Your task to perform on an android device: Go to notification settings Image 0: 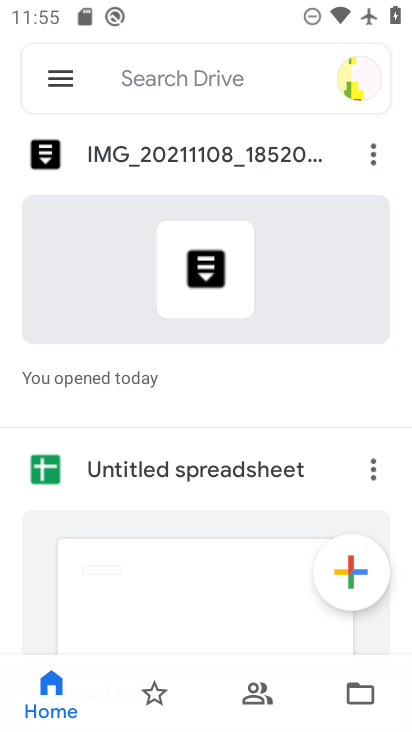
Step 0: press home button
Your task to perform on an android device: Go to notification settings Image 1: 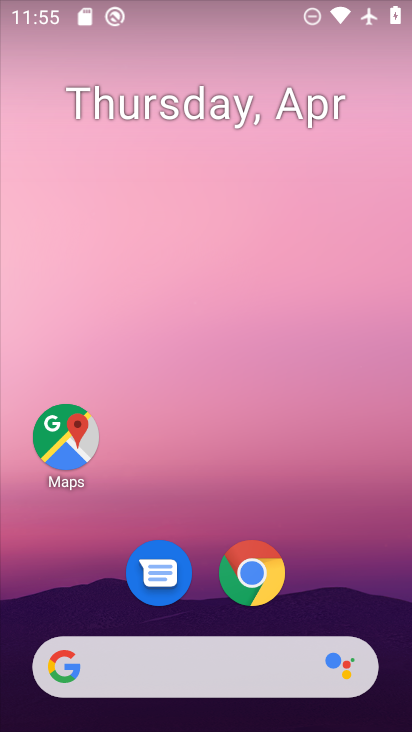
Step 1: drag from (340, 529) to (299, 3)
Your task to perform on an android device: Go to notification settings Image 2: 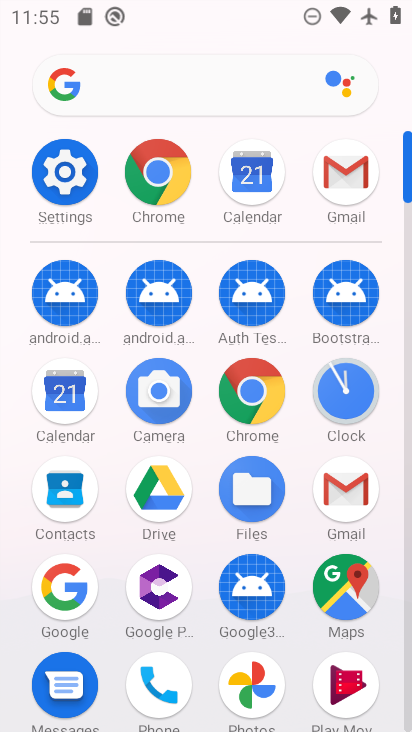
Step 2: click (81, 171)
Your task to perform on an android device: Go to notification settings Image 3: 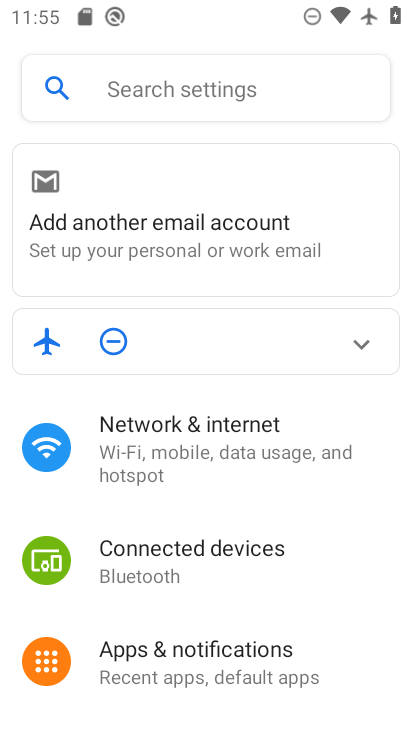
Step 3: drag from (249, 587) to (250, 160)
Your task to perform on an android device: Go to notification settings Image 4: 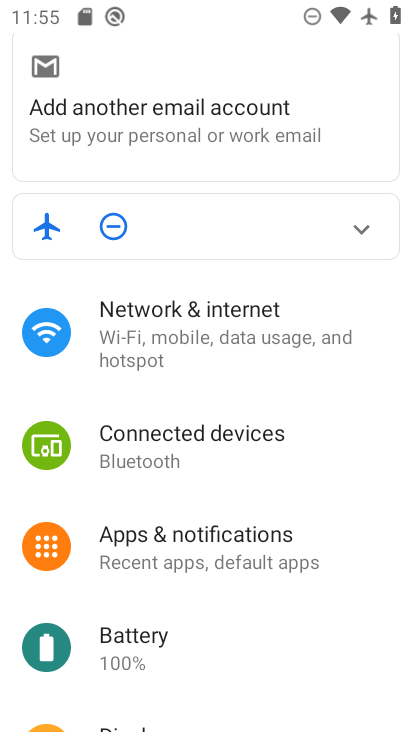
Step 4: click (252, 555)
Your task to perform on an android device: Go to notification settings Image 5: 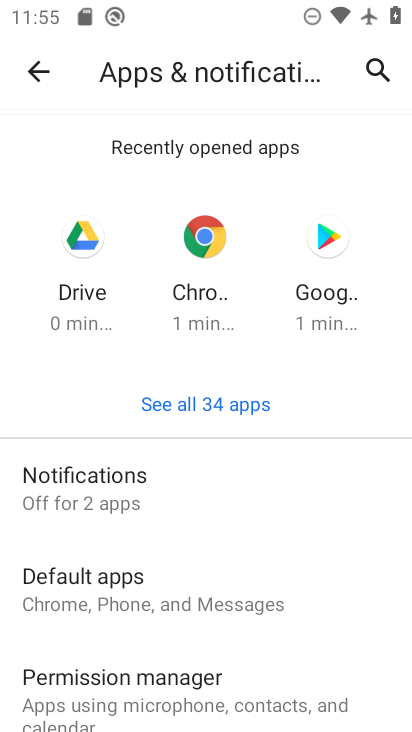
Step 5: drag from (262, 610) to (299, 120)
Your task to perform on an android device: Go to notification settings Image 6: 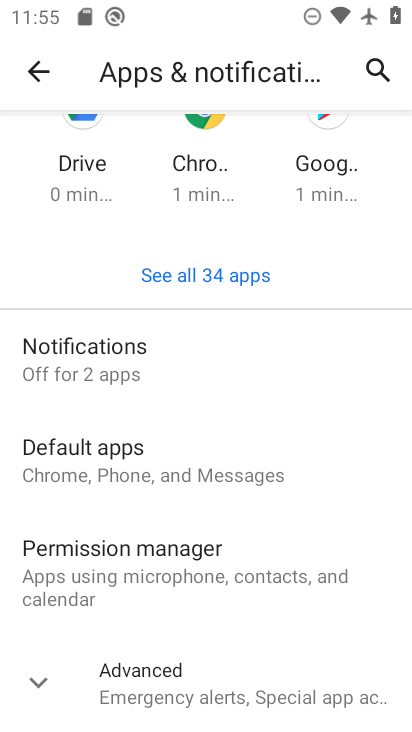
Step 6: drag from (183, 645) to (178, 274)
Your task to perform on an android device: Go to notification settings Image 7: 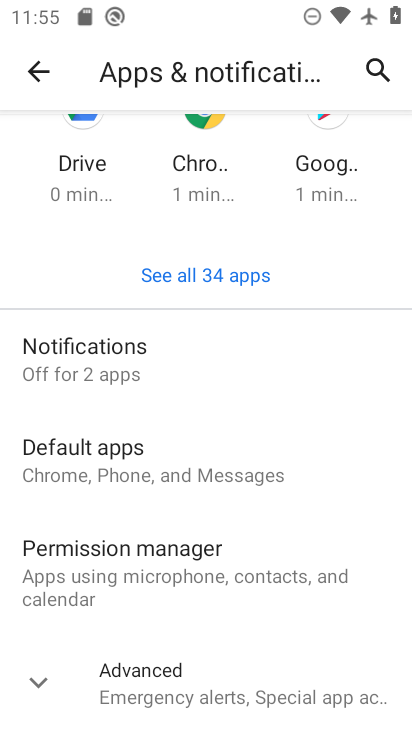
Step 7: click (126, 686)
Your task to perform on an android device: Go to notification settings Image 8: 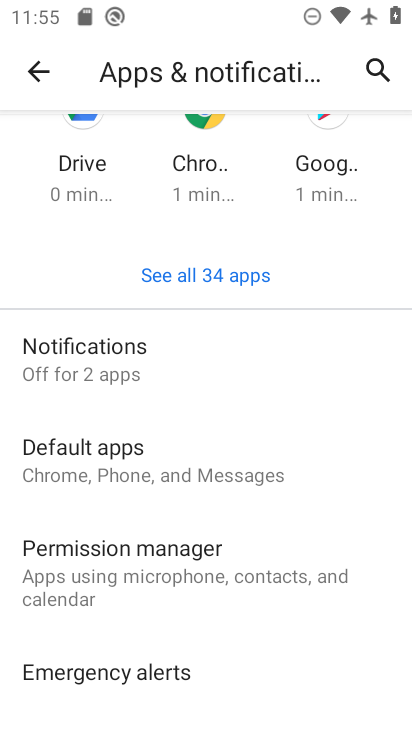
Step 8: task complete